Your task to perform on an android device: Open the stopwatch Image 0: 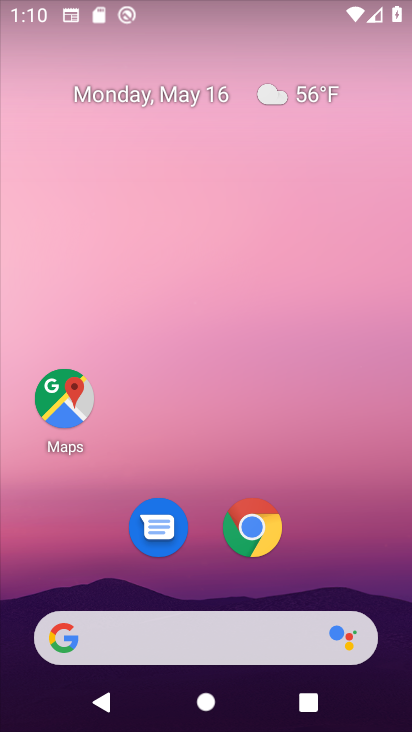
Step 0: drag from (186, 626) to (158, 8)
Your task to perform on an android device: Open the stopwatch Image 1: 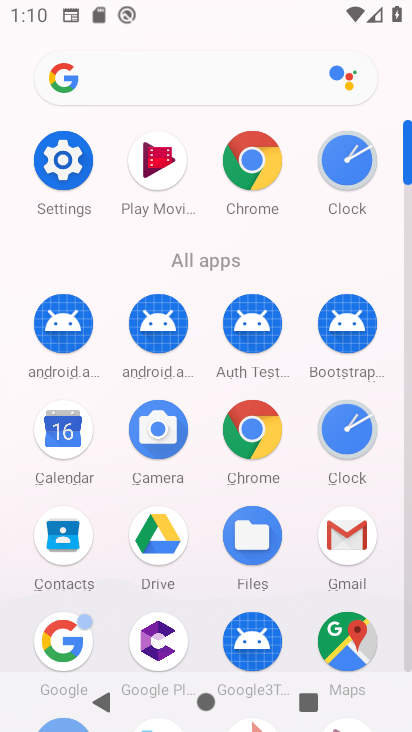
Step 1: click (352, 437)
Your task to perform on an android device: Open the stopwatch Image 2: 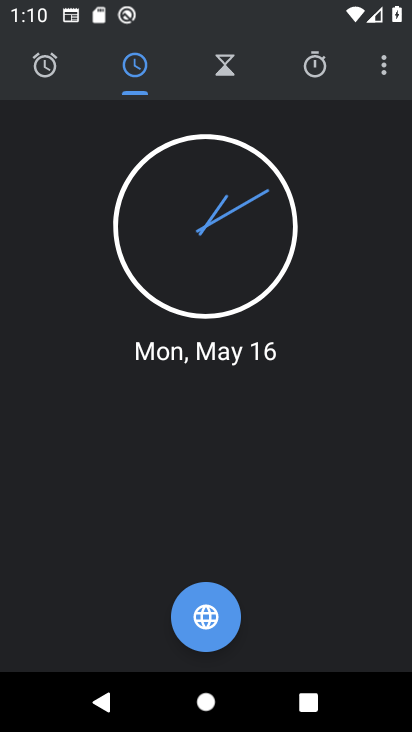
Step 2: click (310, 73)
Your task to perform on an android device: Open the stopwatch Image 3: 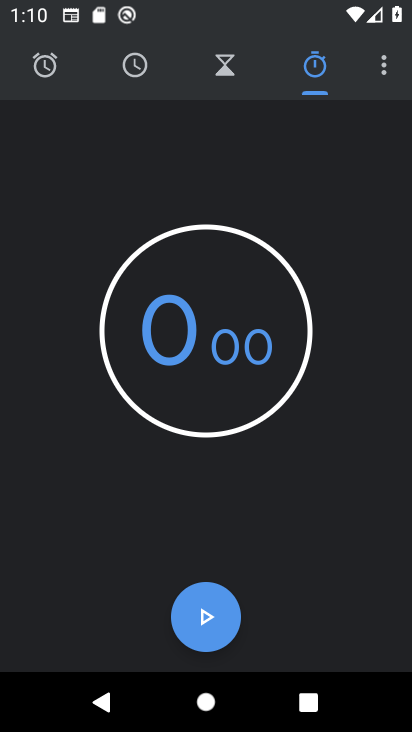
Step 3: task complete